Your task to perform on an android device: Open display settings Image 0: 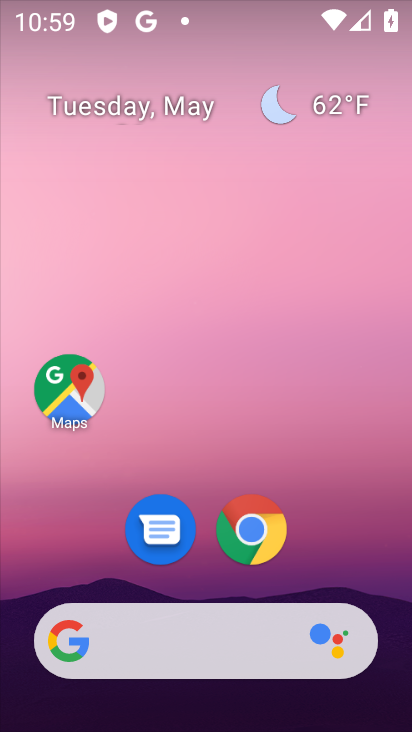
Step 0: drag from (173, 722) to (214, 106)
Your task to perform on an android device: Open display settings Image 1: 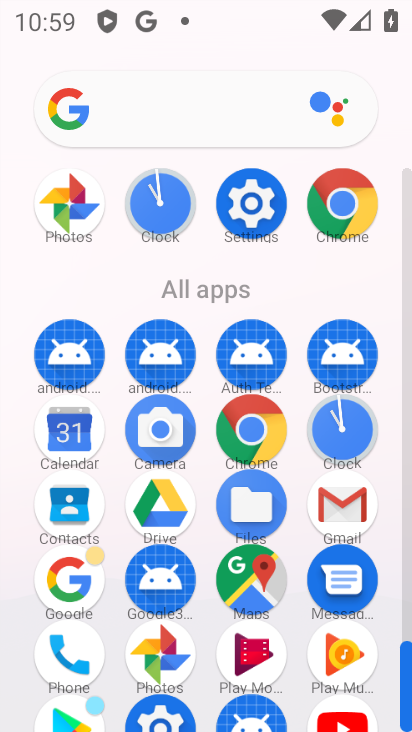
Step 1: click (259, 219)
Your task to perform on an android device: Open display settings Image 2: 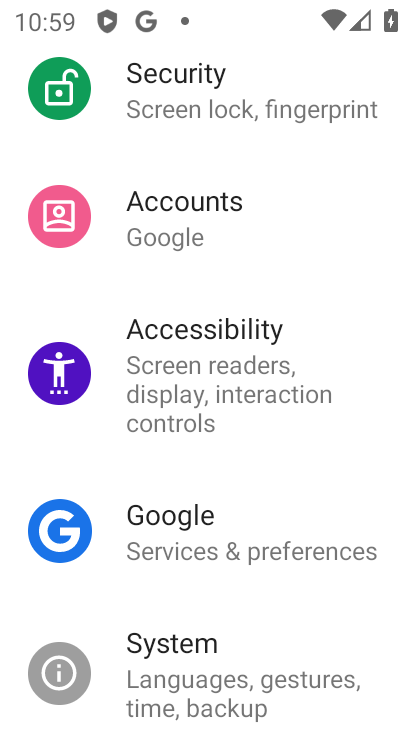
Step 2: drag from (232, 171) to (189, 718)
Your task to perform on an android device: Open display settings Image 3: 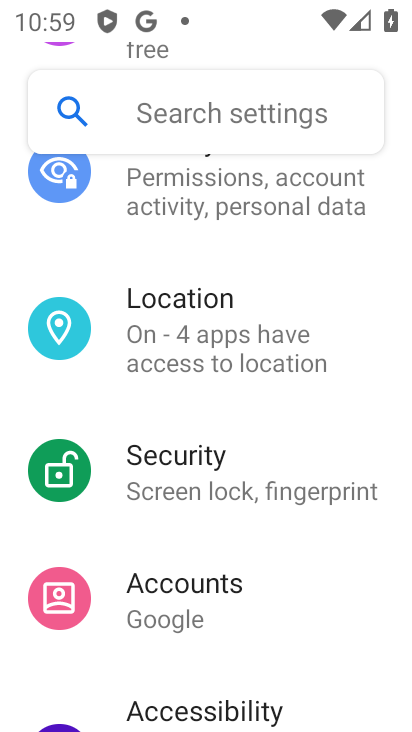
Step 3: drag from (236, 265) to (225, 690)
Your task to perform on an android device: Open display settings Image 4: 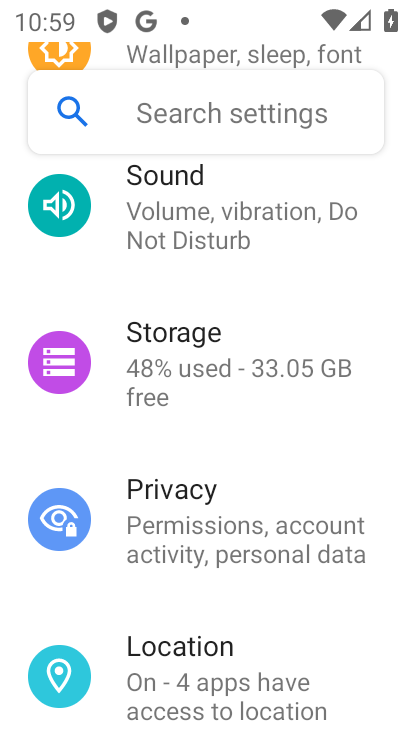
Step 4: drag from (209, 294) to (235, 657)
Your task to perform on an android device: Open display settings Image 5: 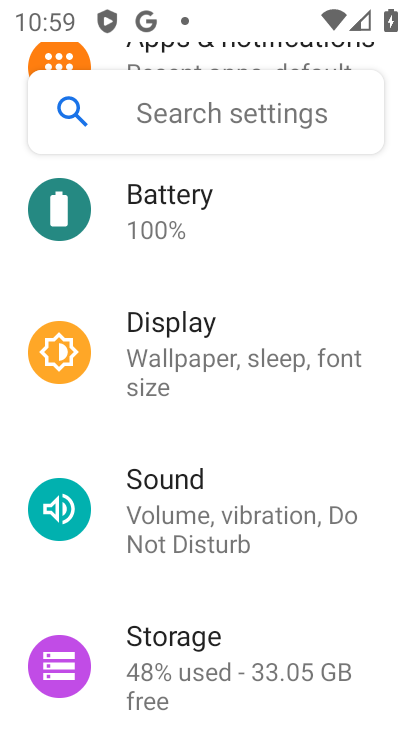
Step 5: click (243, 284)
Your task to perform on an android device: Open display settings Image 6: 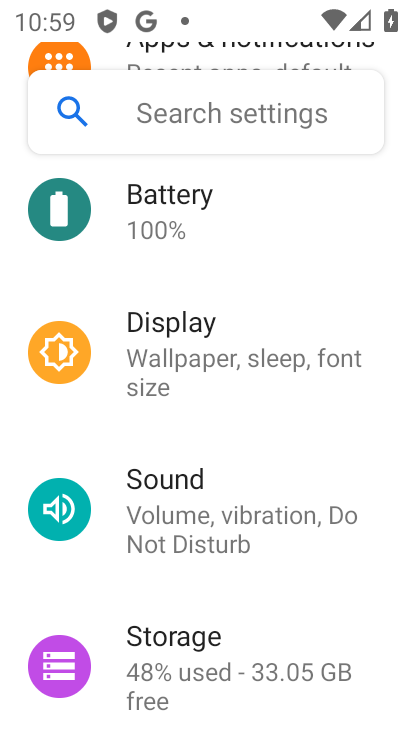
Step 6: click (201, 379)
Your task to perform on an android device: Open display settings Image 7: 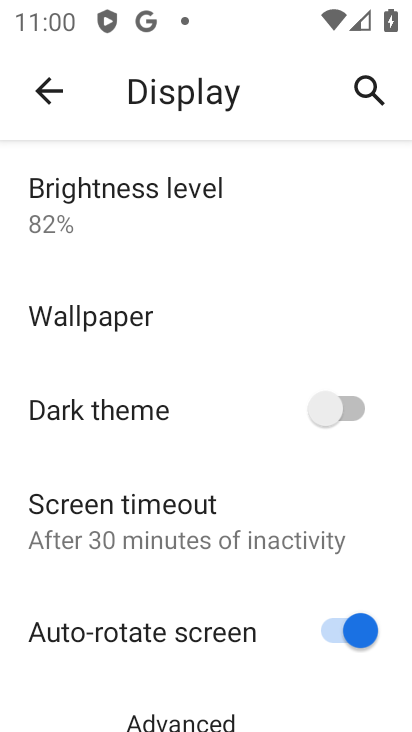
Step 7: task complete